Your task to perform on an android device: Open Chrome and go to the settings page Image 0: 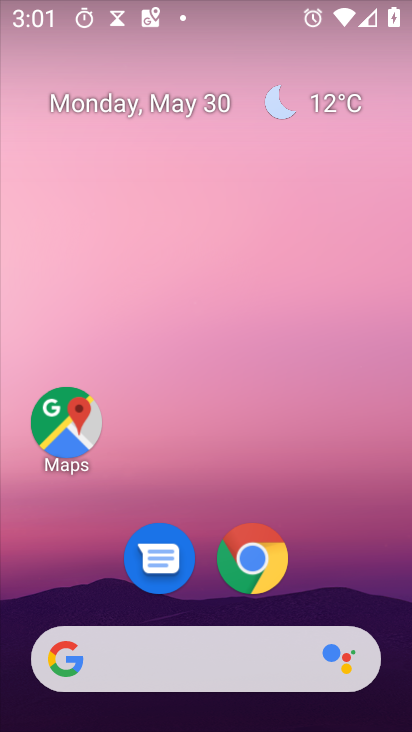
Step 0: click (239, 554)
Your task to perform on an android device: Open Chrome and go to the settings page Image 1: 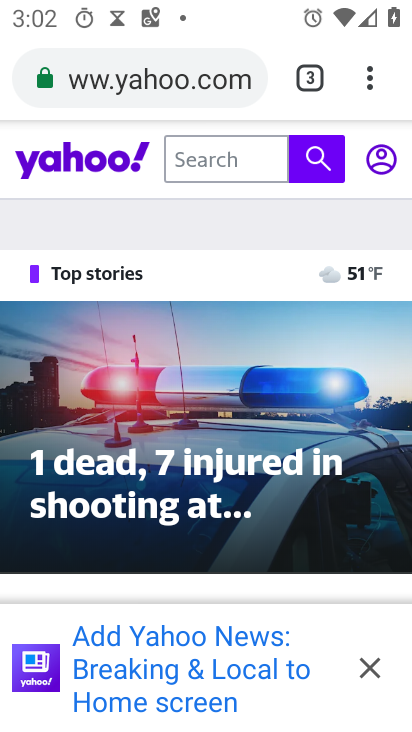
Step 1: task complete